Your task to perform on an android device: When is my next appointment? Image 0: 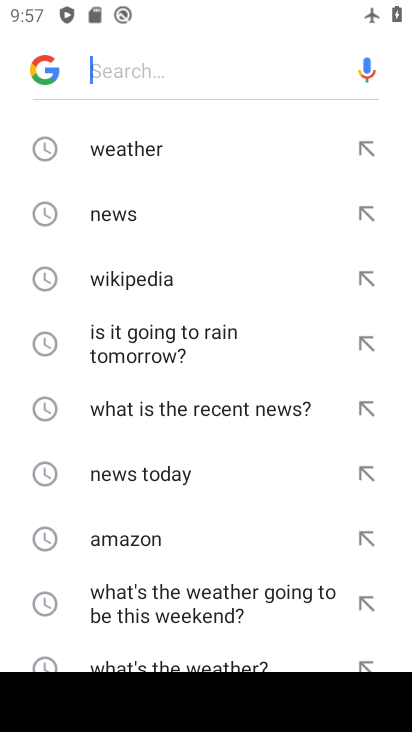
Step 0: press back button
Your task to perform on an android device: When is my next appointment? Image 1: 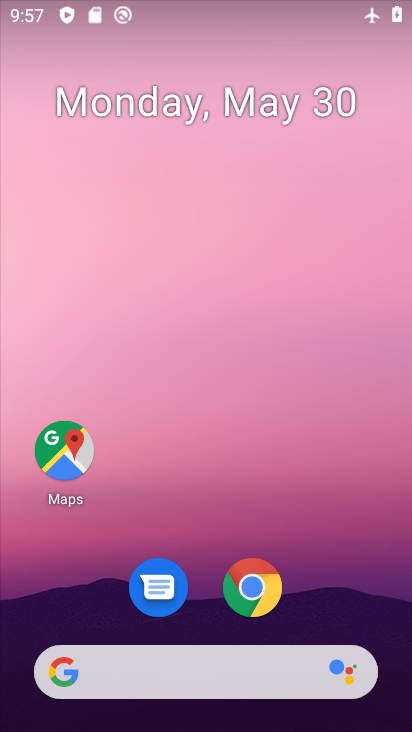
Step 1: drag from (329, 616) to (202, 10)
Your task to perform on an android device: When is my next appointment? Image 2: 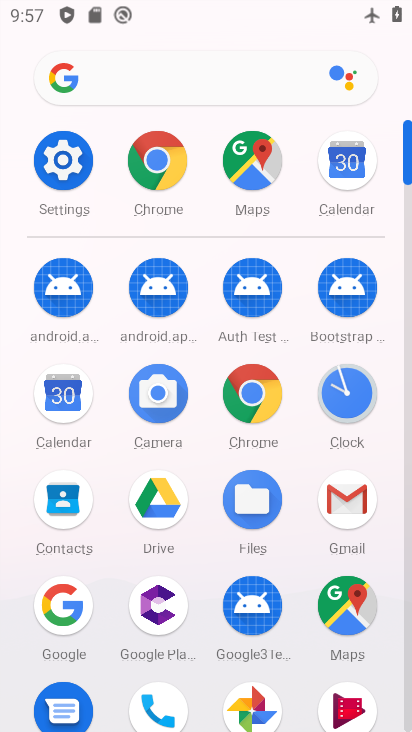
Step 2: drag from (9, 584) to (0, 247)
Your task to perform on an android device: When is my next appointment? Image 3: 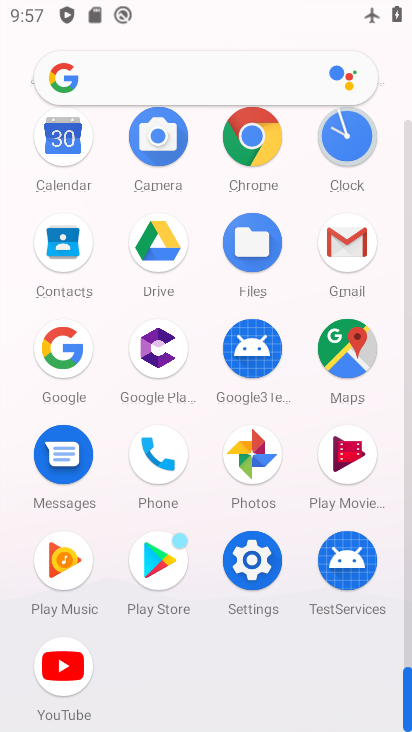
Step 3: drag from (21, 591) to (21, 283)
Your task to perform on an android device: When is my next appointment? Image 4: 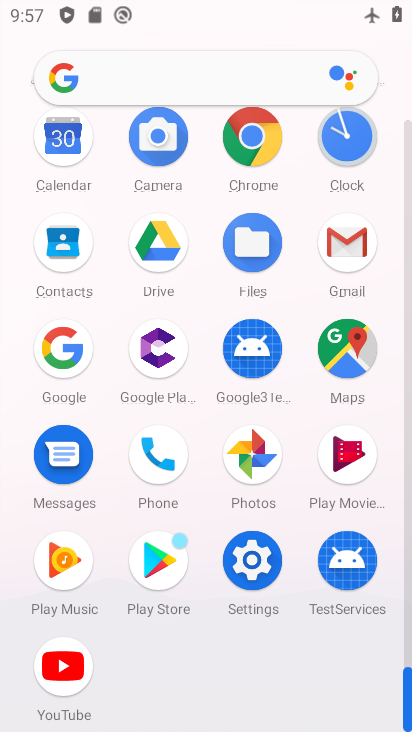
Step 4: click (60, 126)
Your task to perform on an android device: When is my next appointment? Image 5: 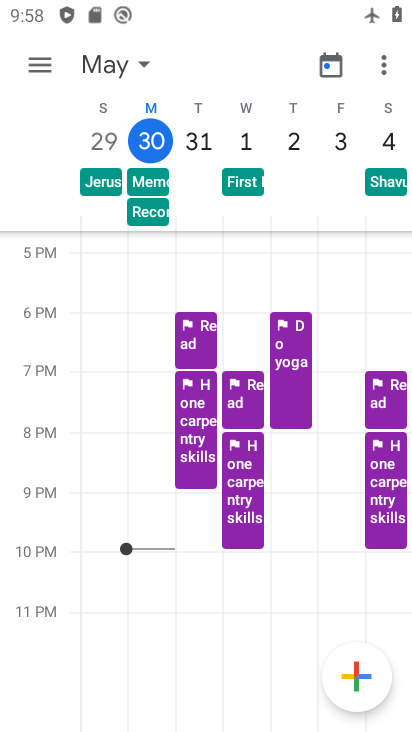
Step 5: click (25, 66)
Your task to perform on an android device: When is my next appointment? Image 6: 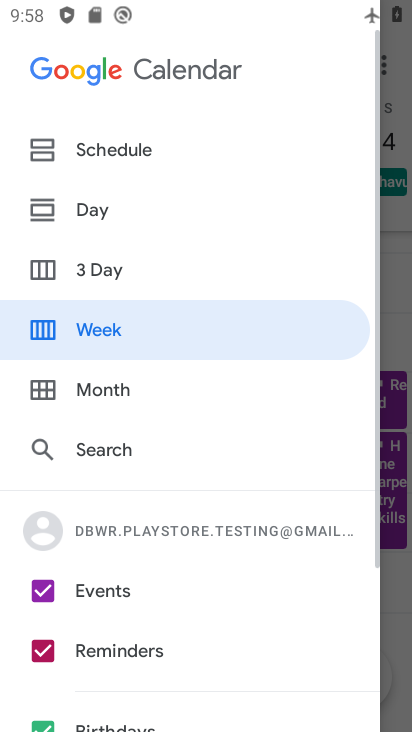
Step 6: click (124, 143)
Your task to perform on an android device: When is my next appointment? Image 7: 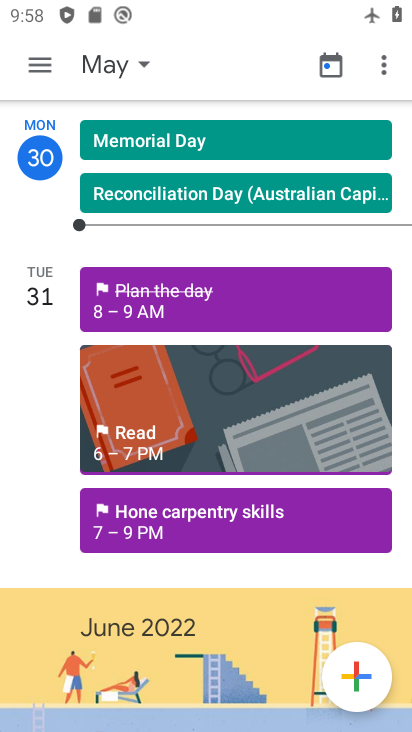
Step 7: task complete